Your task to perform on an android device: Toggle the flashlight Image 0: 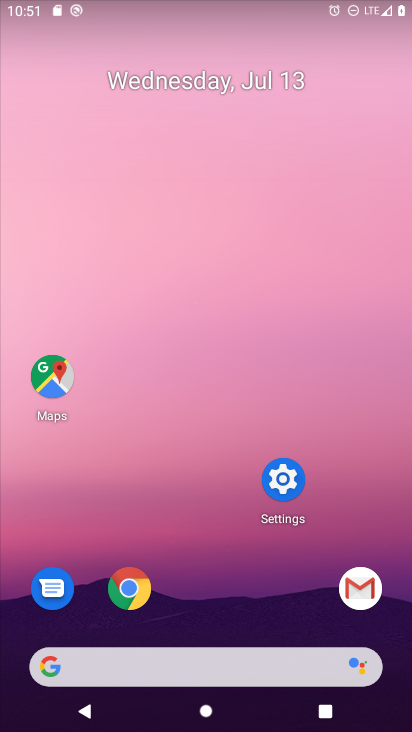
Step 0: click (290, 468)
Your task to perform on an android device: Toggle the flashlight Image 1: 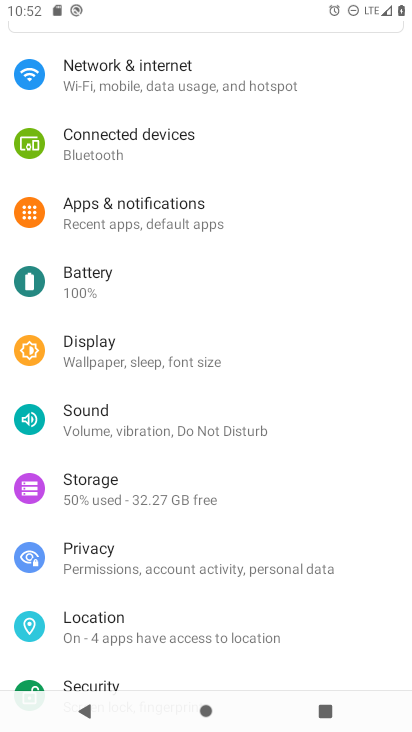
Step 1: drag from (124, 66) to (79, 178)
Your task to perform on an android device: Toggle the flashlight Image 2: 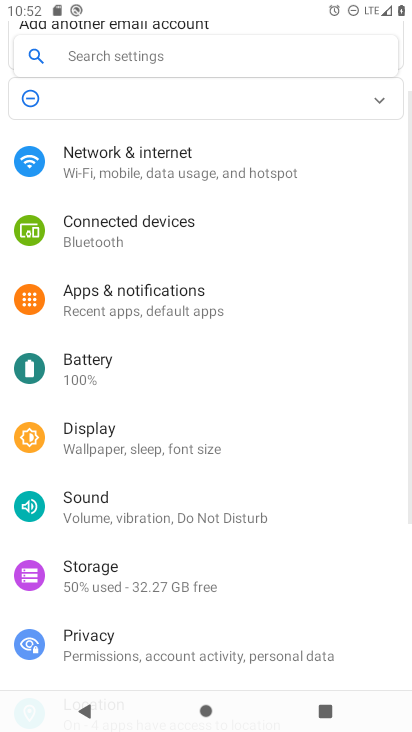
Step 2: click (114, 59)
Your task to perform on an android device: Toggle the flashlight Image 3: 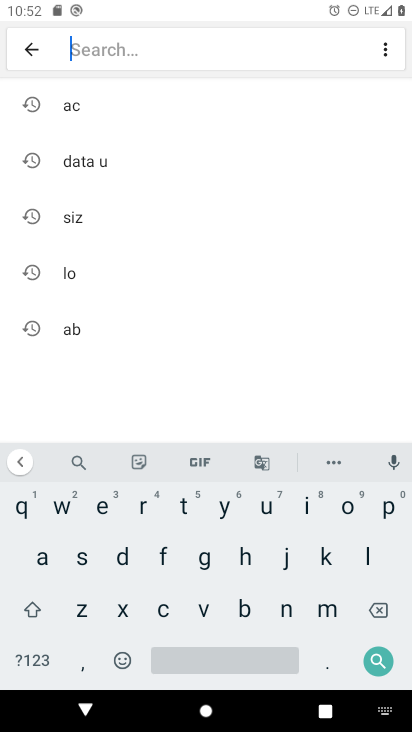
Step 3: click (161, 543)
Your task to perform on an android device: Toggle the flashlight Image 4: 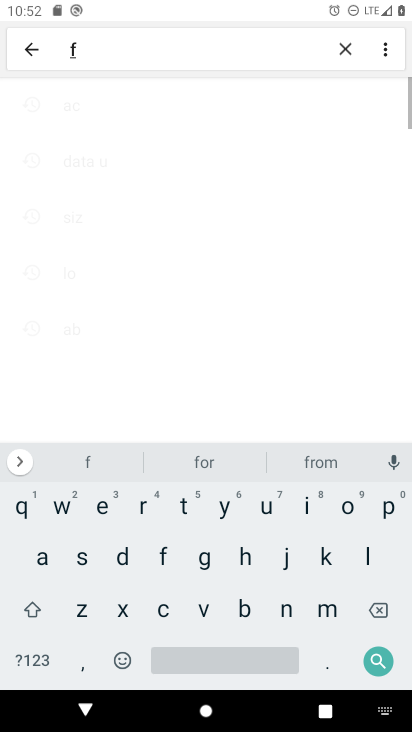
Step 4: click (370, 553)
Your task to perform on an android device: Toggle the flashlight Image 5: 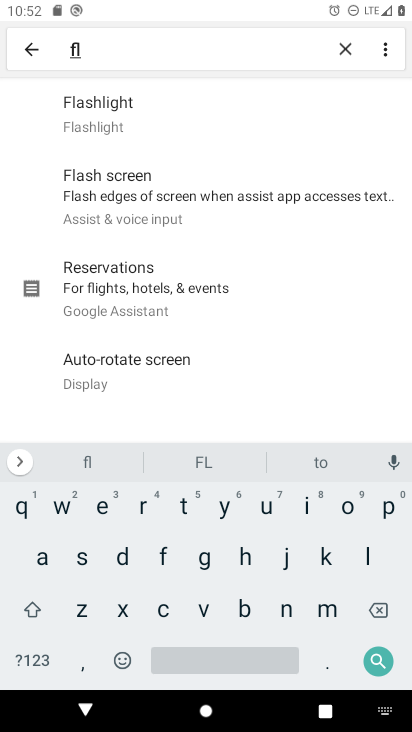
Step 5: click (120, 99)
Your task to perform on an android device: Toggle the flashlight Image 6: 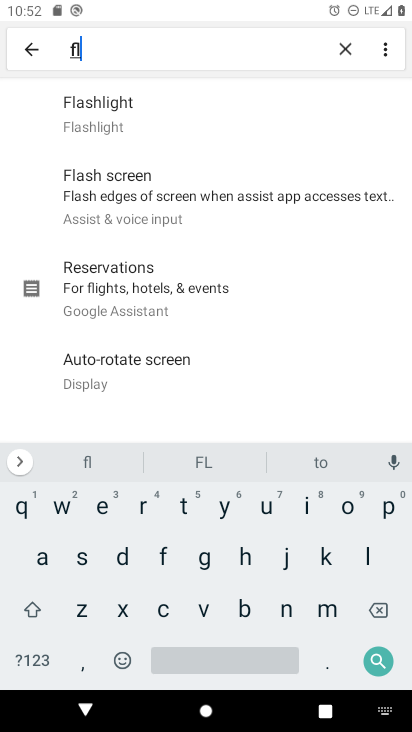
Step 6: task complete